Your task to perform on an android device: Open notification settings Image 0: 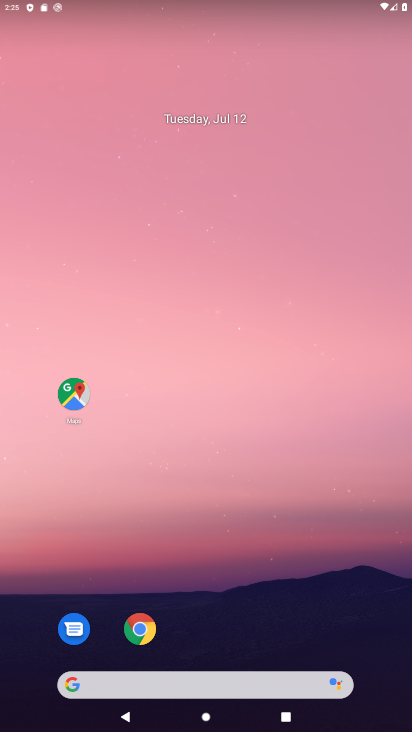
Step 0: drag from (197, 667) to (380, 233)
Your task to perform on an android device: Open notification settings Image 1: 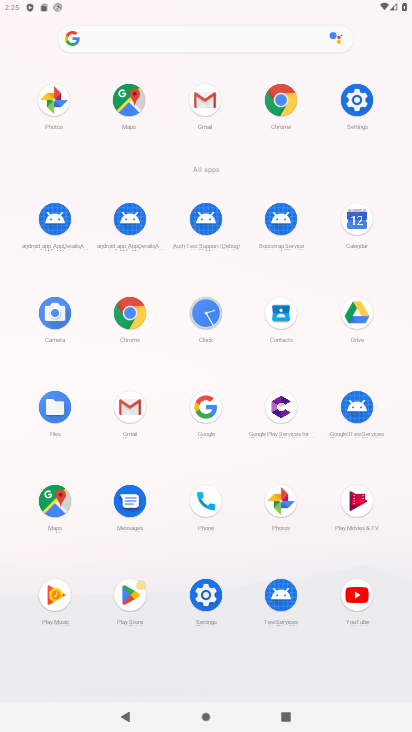
Step 1: click (203, 591)
Your task to perform on an android device: Open notification settings Image 2: 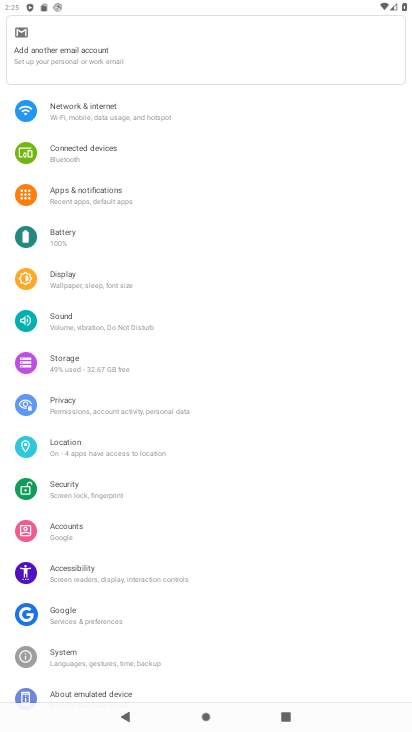
Step 2: click (82, 189)
Your task to perform on an android device: Open notification settings Image 3: 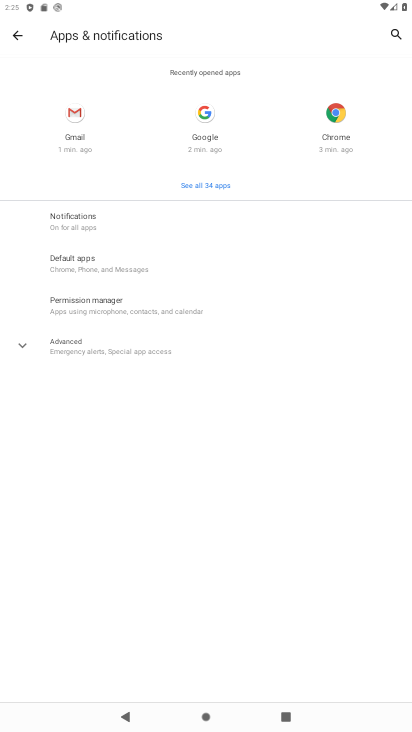
Step 3: click (84, 224)
Your task to perform on an android device: Open notification settings Image 4: 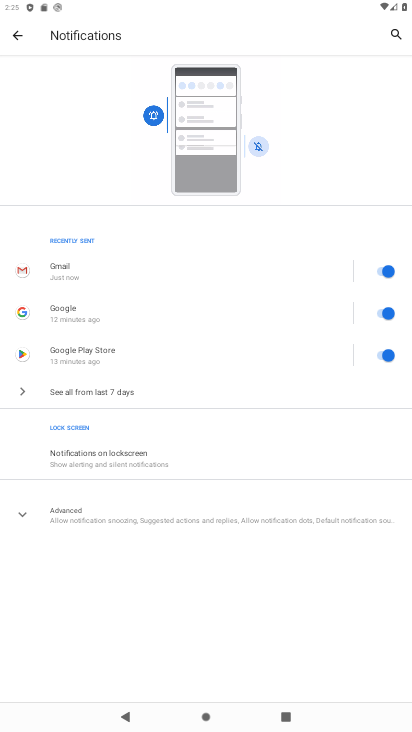
Step 4: task complete